Your task to perform on an android device: turn off data saver in the chrome app Image 0: 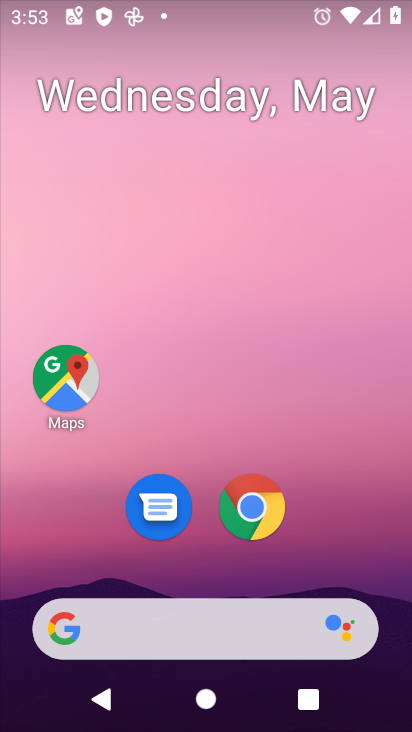
Step 0: click (252, 502)
Your task to perform on an android device: turn off data saver in the chrome app Image 1: 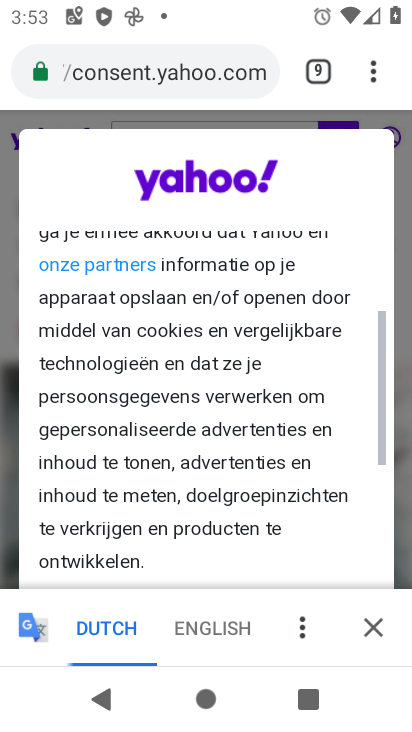
Step 1: click (369, 66)
Your task to perform on an android device: turn off data saver in the chrome app Image 2: 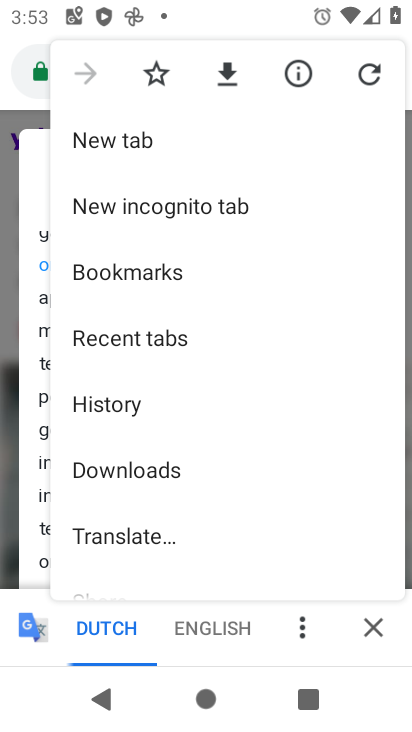
Step 2: drag from (245, 510) to (310, 198)
Your task to perform on an android device: turn off data saver in the chrome app Image 3: 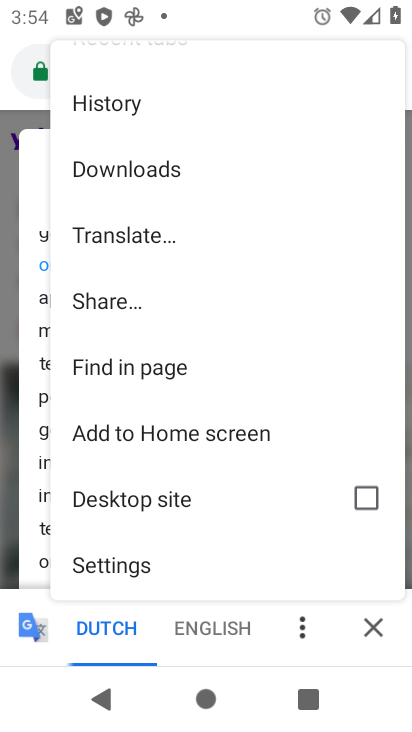
Step 3: click (135, 547)
Your task to perform on an android device: turn off data saver in the chrome app Image 4: 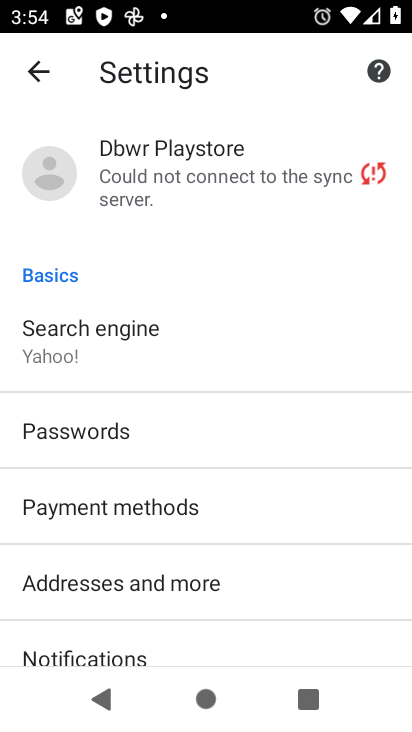
Step 4: drag from (190, 530) to (276, 163)
Your task to perform on an android device: turn off data saver in the chrome app Image 5: 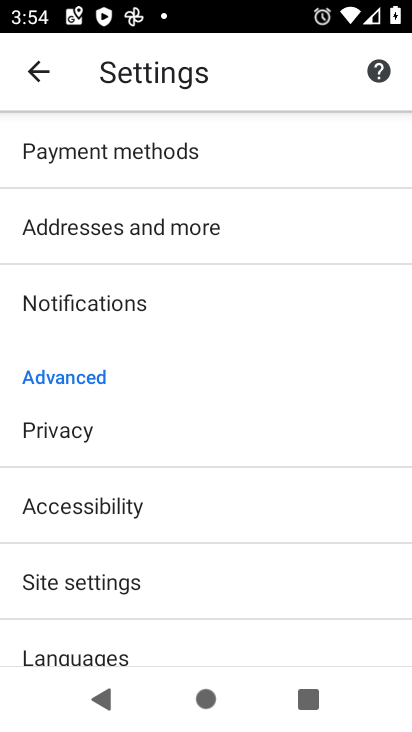
Step 5: drag from (195, 487) to (247, 99)
Your task to perform on an android device: turn off data saver in the chrome app Image 6: 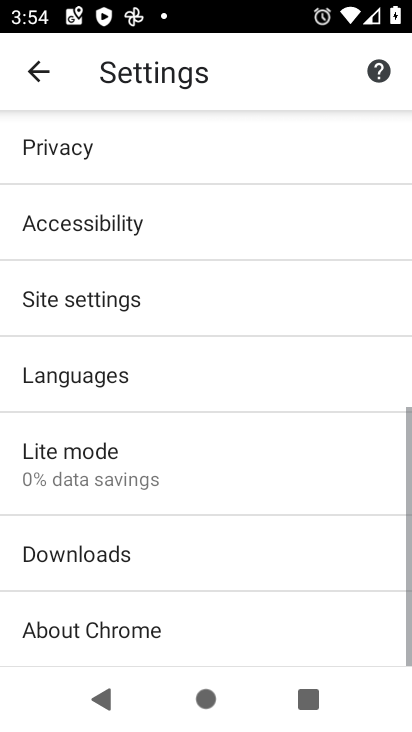
Step 6: drag from (171, 454) to (227, 190)
Your task to perform on an android device: turn off data saver in the chrome app Image 7: 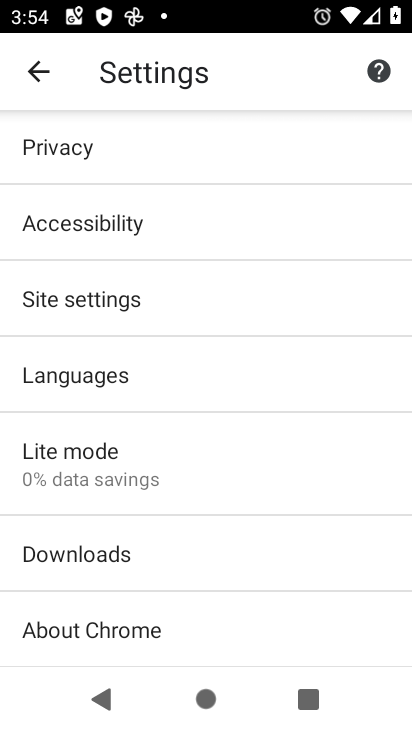
Step 7: click (163, 466)
Your task to perform on an android device: turn off data saver in the chrome app Image 8: 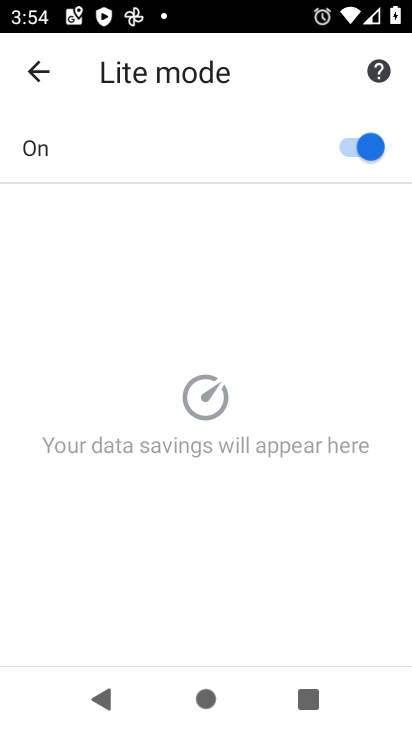
Step 8: click (364, 139)
Your task to perform on an android device: turn off data saver in the chrome app Image 9: 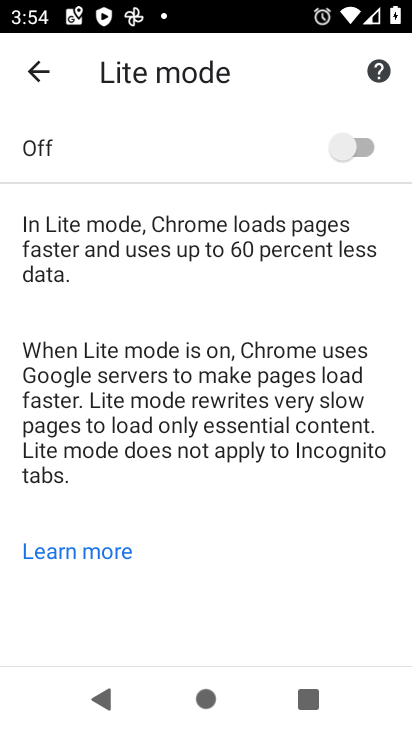
Step 9: task complete